Your task to perform on an android device: Open privacy settings Image 0: 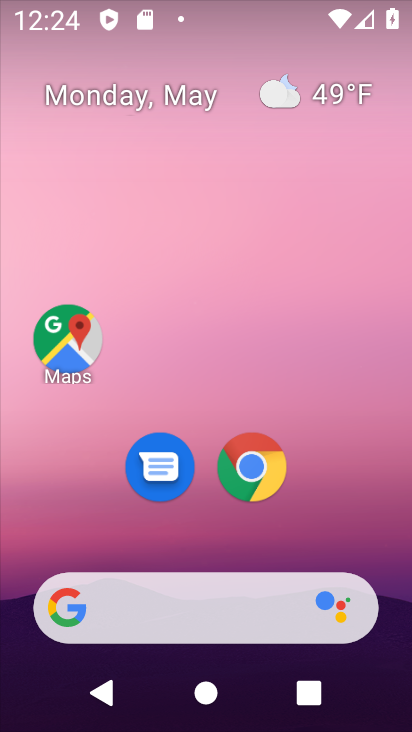
Step 0: drag from (345, 537) to (353, 137)
Your task to perform on an android device: Open privacy settings Image 1: 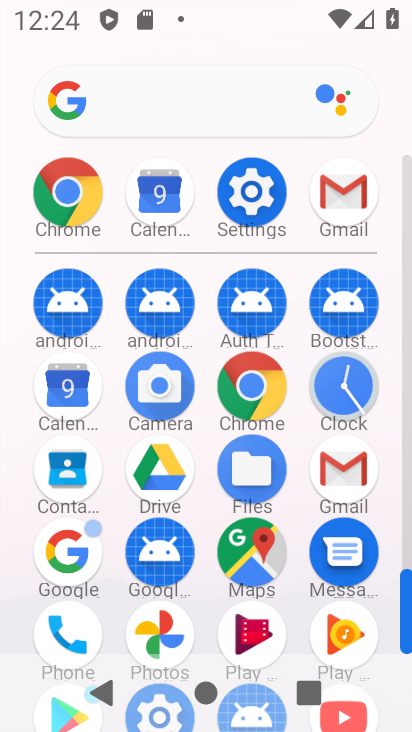
Step 1: click (239, 192)
Your task to perform on an android device: Open privacy settings Image 2: 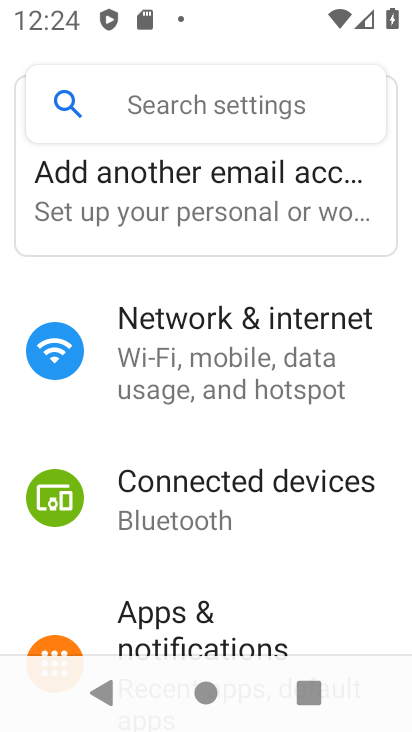
Step 2: drag from (295, 555) to (314, 228)
Your task to perform on an android device: Open privacy settings Image 3: 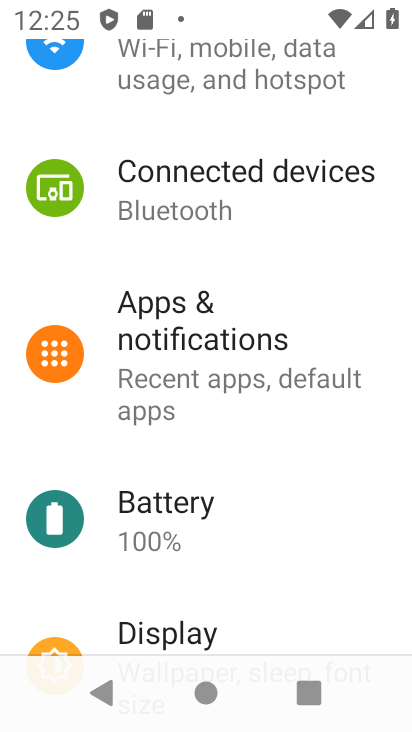
Step 3: drag from (283, 550) to (286, 218)
Your task to perform on an android device: Open privacy settings Image 4: 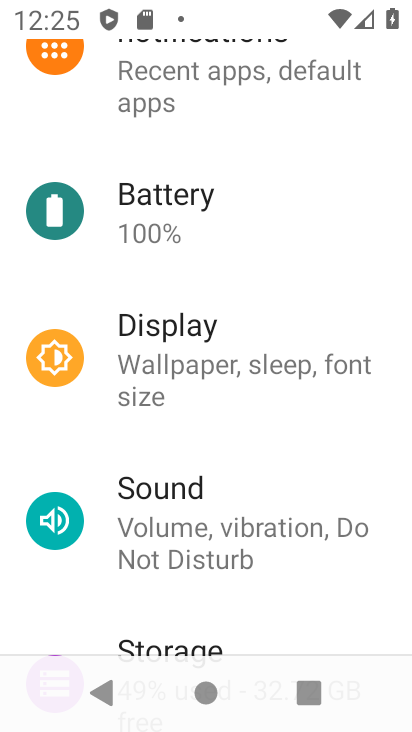
Step 4: drag from (293, 573) to (308, 255)
Your task to perform on an android device: Open privacy settings Image 5: 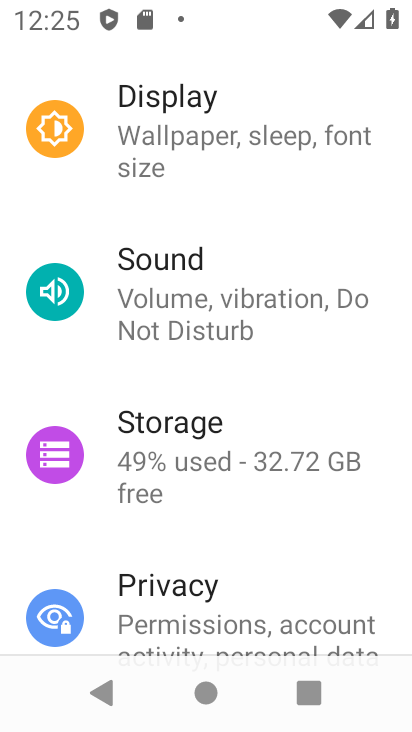
Step 5: drag from (307, 590) to (303, 313)
Your task to perform on an android device: Open privacy settings Image 6: 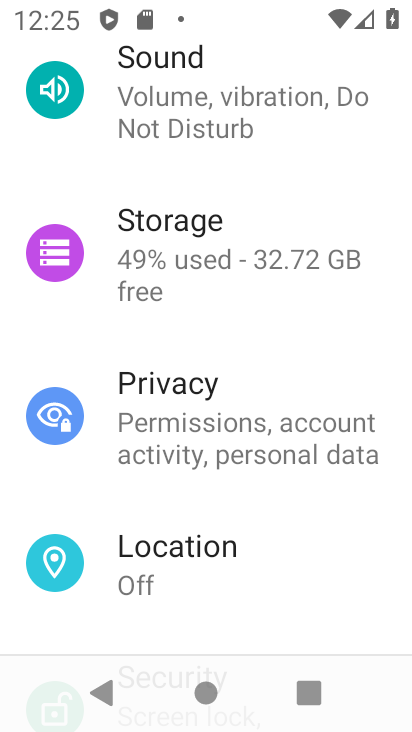
Step 6: click (252, 393)
Your task to perform on an android device: Open privacy settings Image 7: 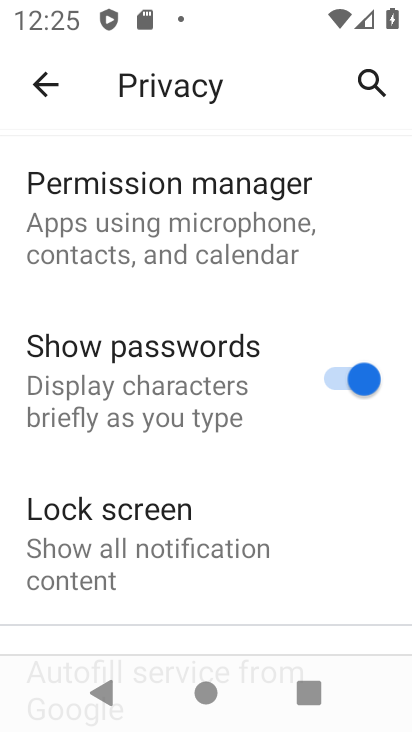
Step 7: task complete